Your task to perform on an android device: open app "Facebook Messenger" (install if not already installed) Image 0: 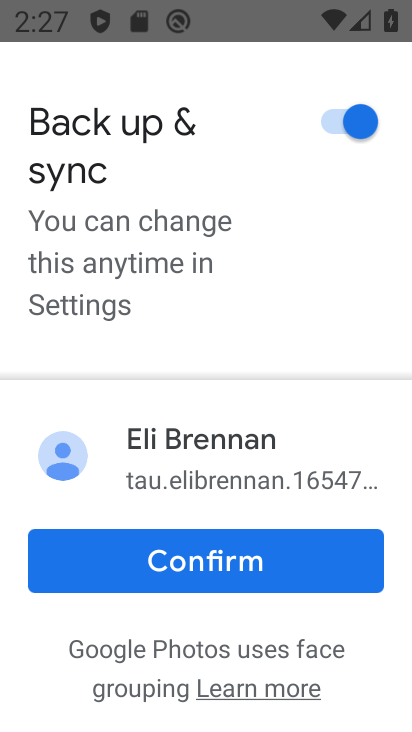
Step 0: press home button
Your task to perform on an android device: open app "Facebook Messenger" (install if not already installed) Image 1: 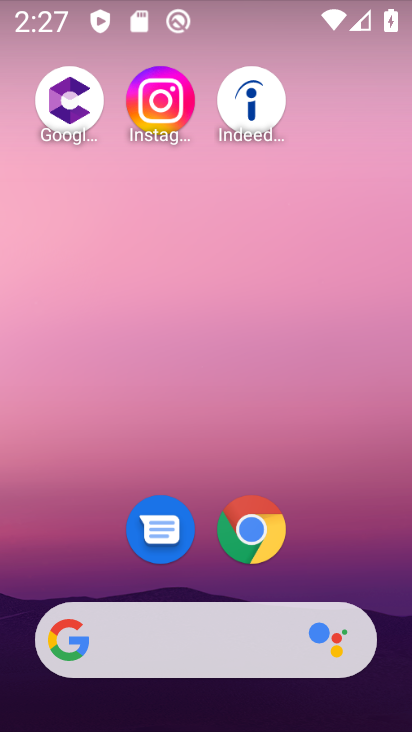
Step 1: drag from (176, 552) to (185, 24)
Your task to perform on an android device: open app "Facebook Messenger" (install if not already installed) Image 2: 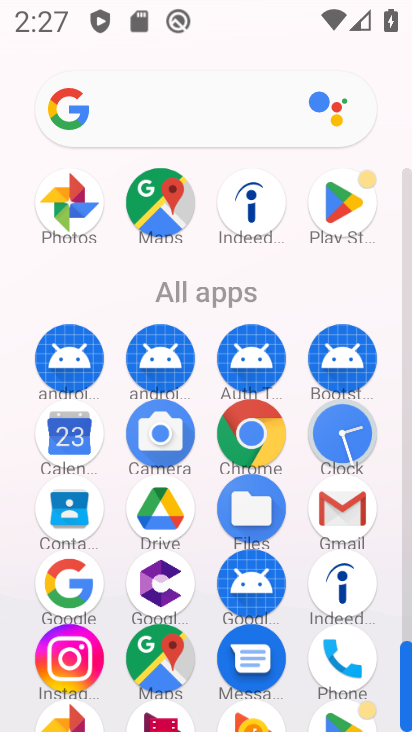
Step 2: click (349, 228)
Your task to perform on an android device: open app "Facebook Messenger" (install if not already installed) Image 3: 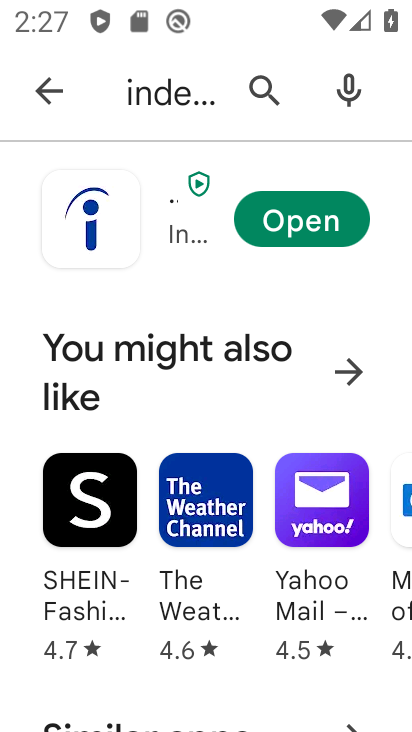
Step 3: click (164, 90)
Your task to perform on an android device: open app "Facebook Messenger" (install if not already installed) Image 4: 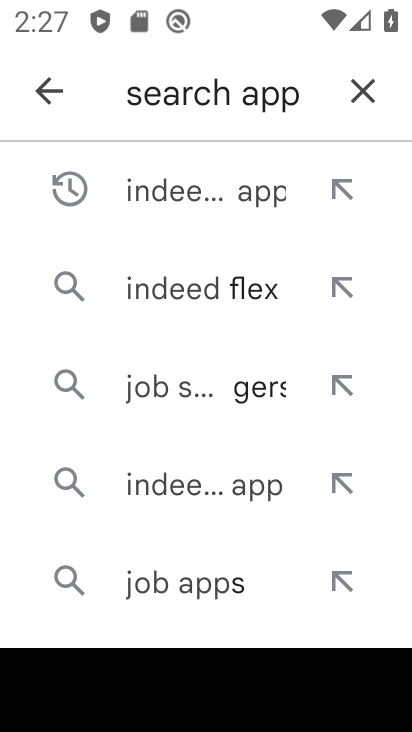
Step 4: click (365, 90)
Your task to perform on an android device: open app "Facebook Messenger" (install if not already installed) Image 5: 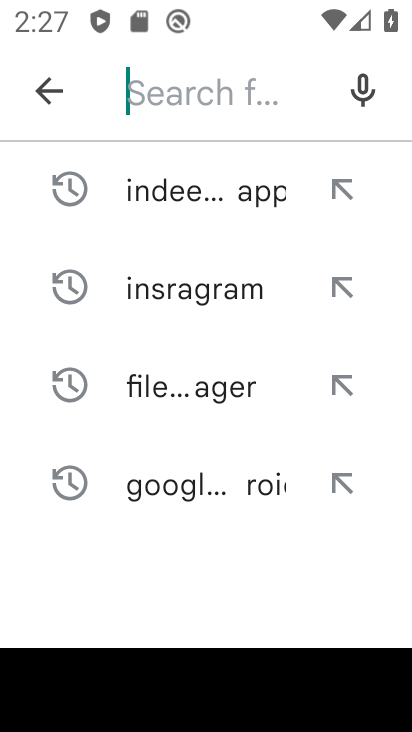
Step 5: type "Facebook Messenger"
Your task to perform on an android device: open app "Facebook Messenger" (install if not already installed) Image 6: 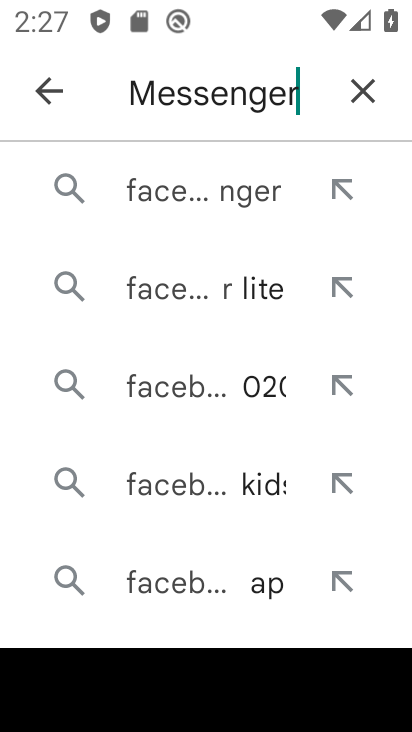
Step 6: click (156, 186)
Your task to perform on an android device: open app "Facebook Messenger" (install if not already installed) Image 7: 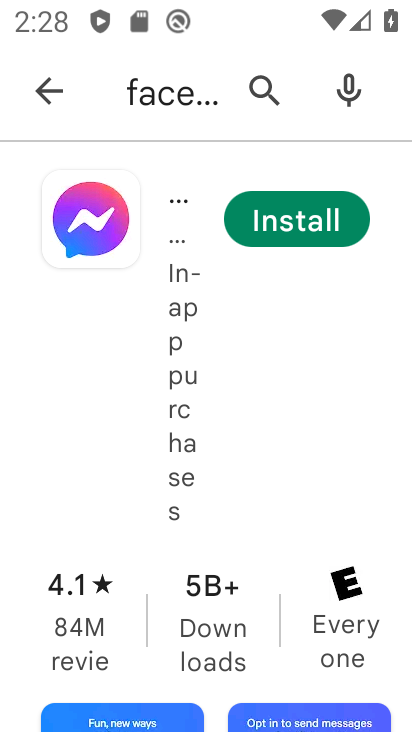
Step 7: click (317, 231)
Your task to perform on an android device: open app "Facebook Messenger" (install if not already installed) Image 8: 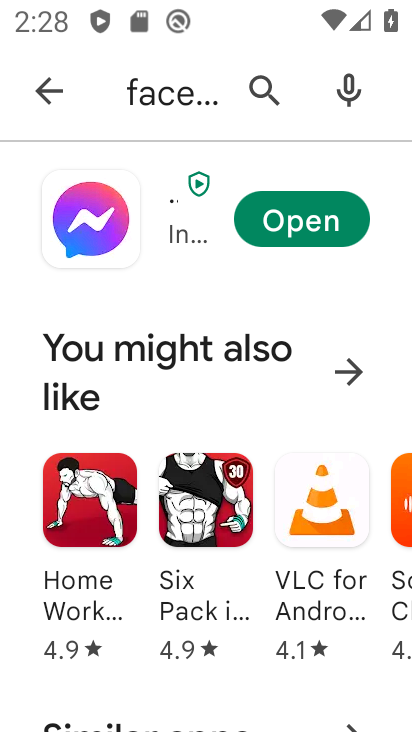
Step 8: click (300, 216)
Your task to perform on an android device: open app "Facebook Messenger" (install if not already installed) Image 9: 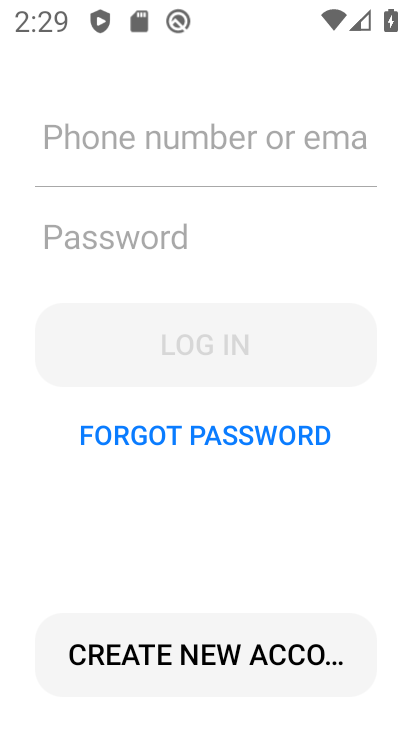
Step 9: task complete